Your task to perform on an android device: turn off notifications settings in the gmail app Image 0: 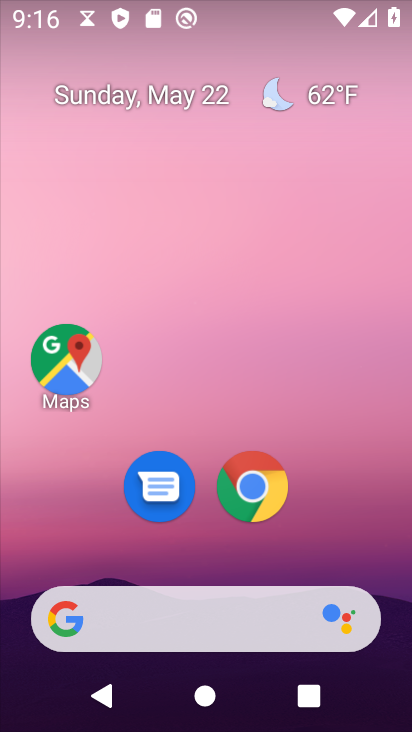
Step 0: drag from (218, 546) to (235, 115)
Your task to perform on an android device: turn off notifications settings in the gmail app Image 1: 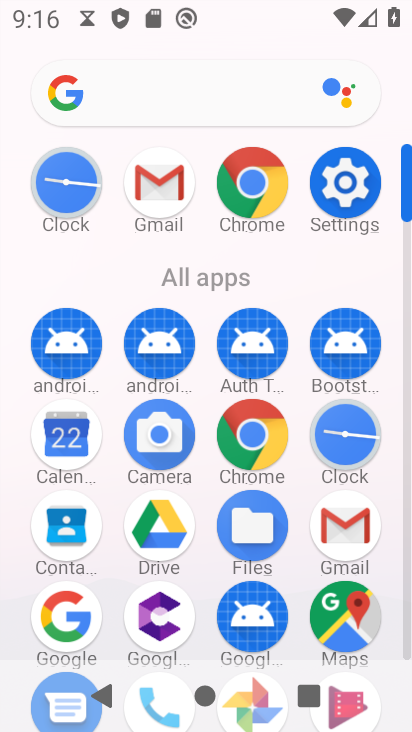
Step 1: click (156, 174)
Your task to perform on an android device: turn off notifications settings in the gmail app Image 2: 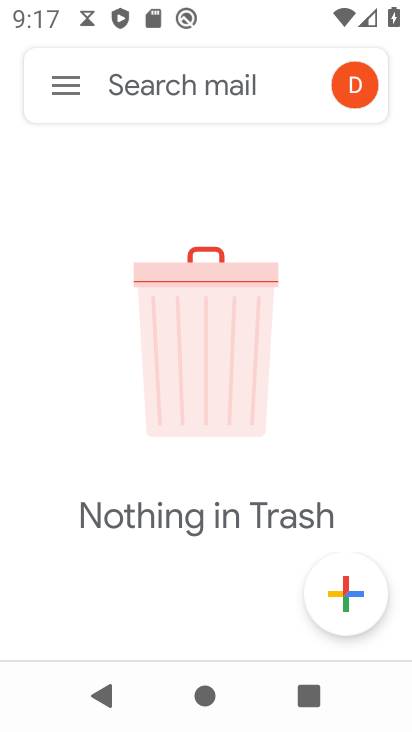
Step 2: click (65, 77)
Your task to perform on an android device: turn off notifications settings in the gmail app Image 3: 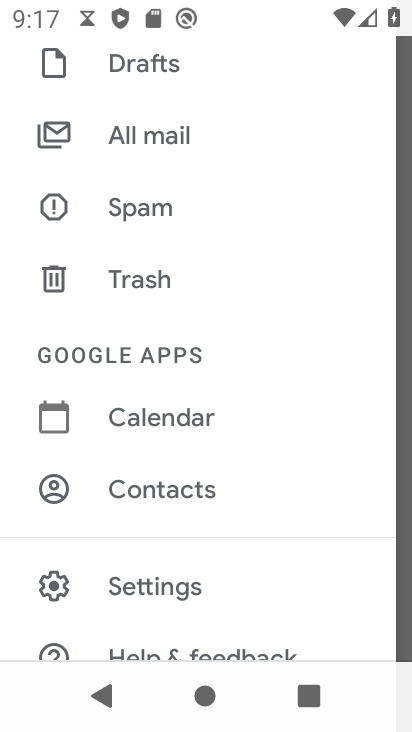
Step 3: click (207, 575)
Your task to perform on an android device: turn off notifications settings in the gmail app Image 4: 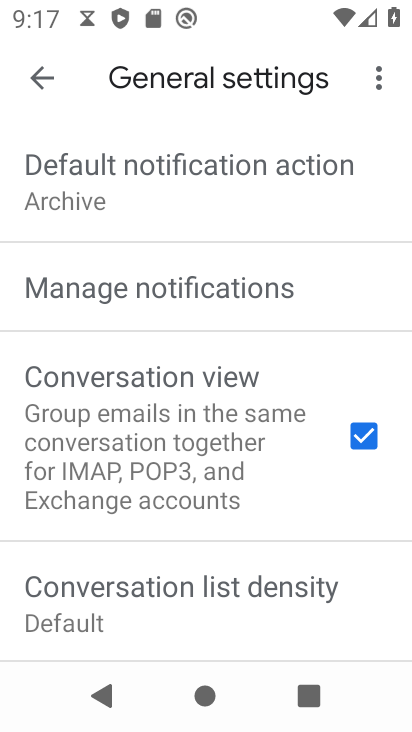
Step 4: click (162, 303)
Your task to perform on an android device: turn off notifications settings in the gmail app Image 5: 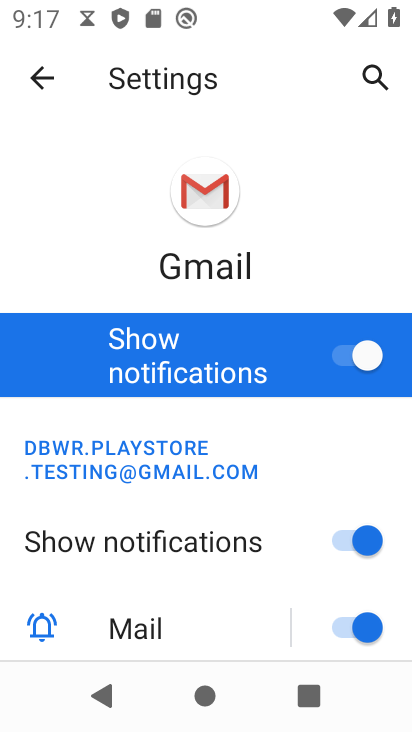
Step 5: click (342, 349)
Your task to perform on an android device: turn off notifications settings in the gmail app Image 6: 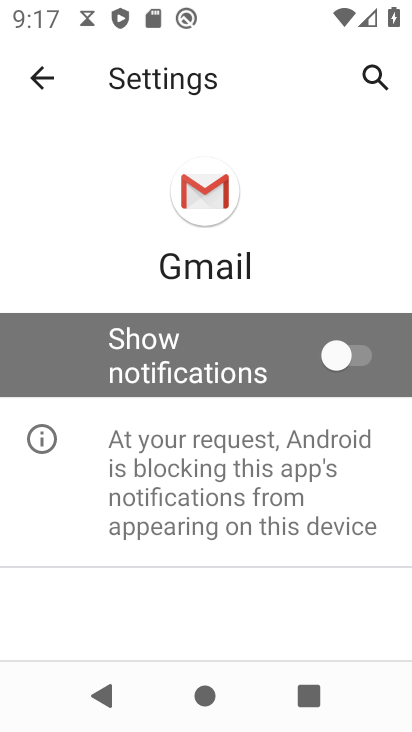
Step 6: task complete